Your task to perform on an android device: add a contact in the contacts app Image 0: 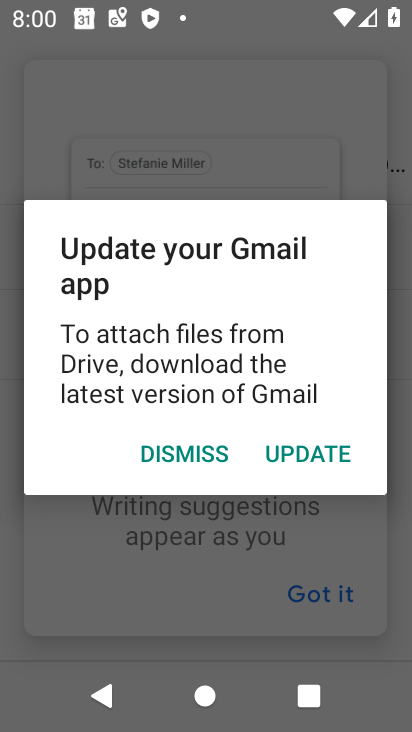
Step 0: press home button
Your task to perform on an android device: add a contact in the contacts app Image 1: 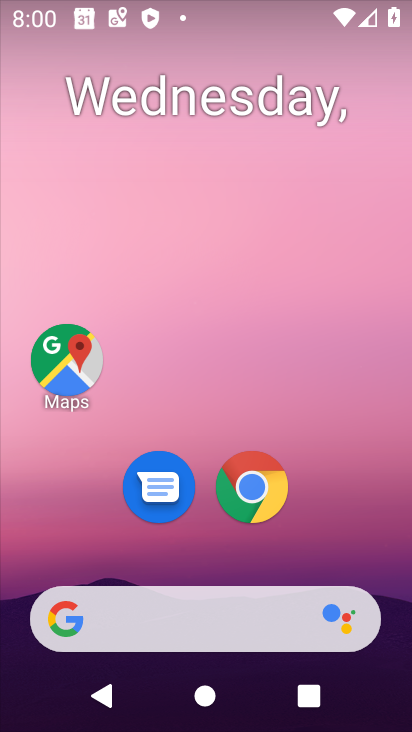
Step 1: drag from (372, 530) to (362, 194)
Your task to perform on an android device: add a contact in the contacts app Image 2: 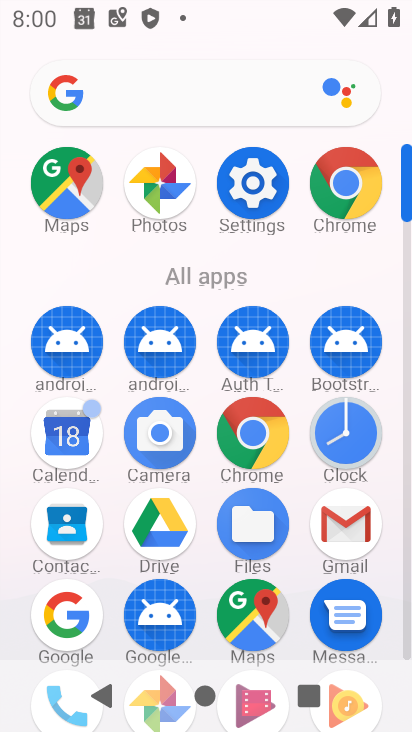
Step 2: click (44, 547)
Your task to perform on an android device: add a contact in the contacts app Image 3: 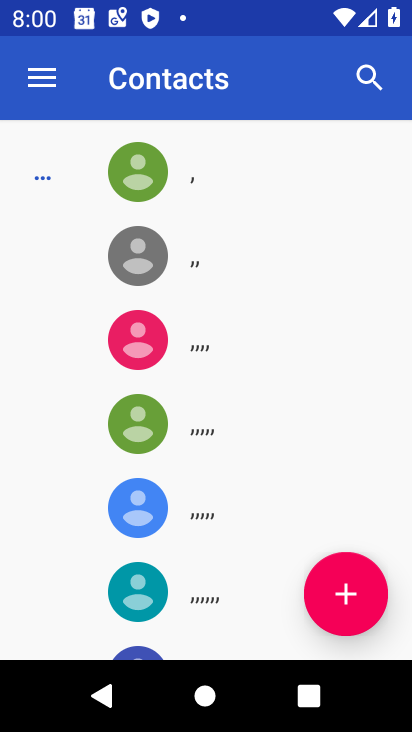
Step 3: click (368, 580)
Your task to perform on an android device: add a contact in the contacts app Image 4: 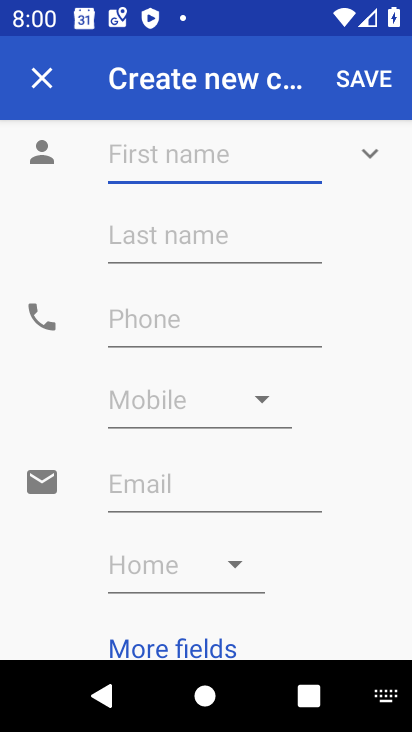
Step 4: click (224, 143)
Your task to perform on an android device: add a contact in the contacts app Image 5: 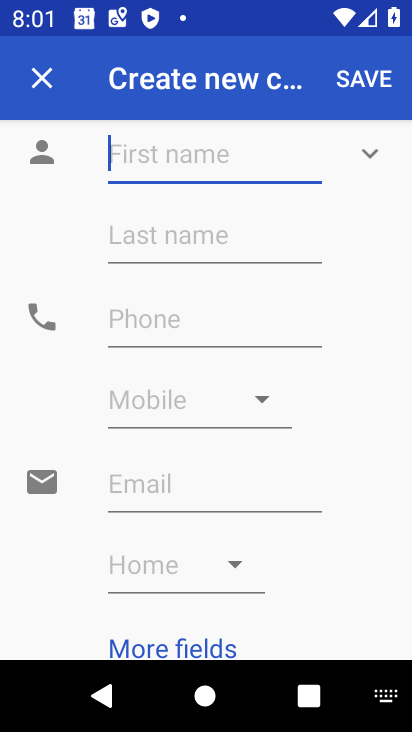
Step 5: type "fav"
Your task to perform on an android device: add a contact in the contacts app Image 6: 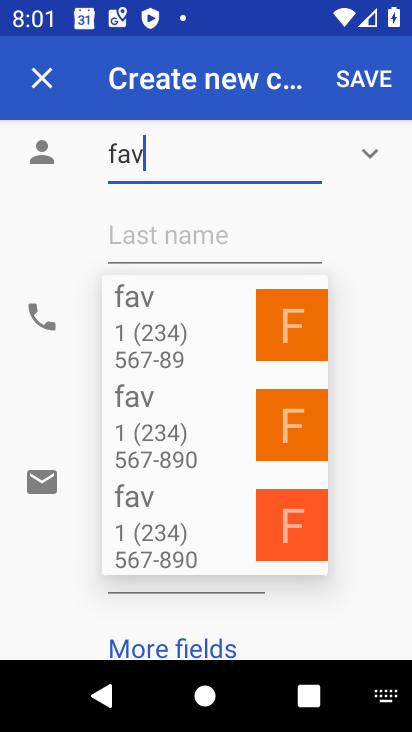
Step 6: click (387, 311)
Your task to perform on an android device: add a contact in the contacts app Image 7: 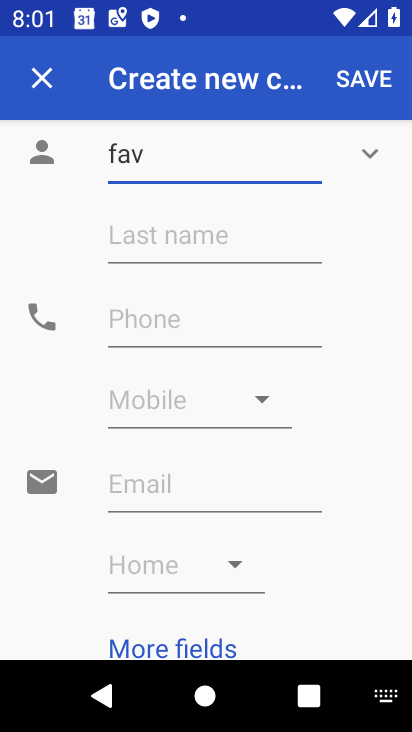
Step 7: click (187, 327)
Your task to perform on an android device: add a contact in the contacts app Image 8: 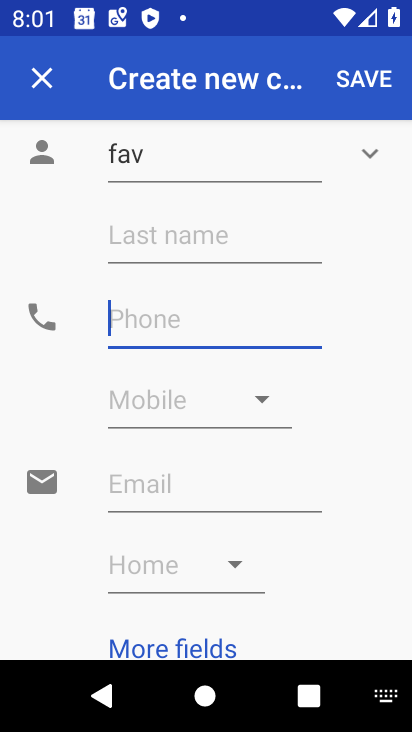
Step 8: type "1234567890"
Your task to perform on an android device: add a contact in the contacts app Image 9: 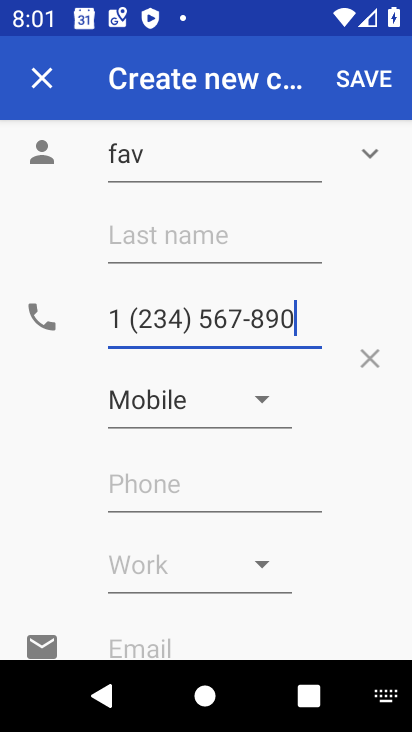
Step 9: click (360, 81)
Your task to perform on an android device: add a contact in the contacts app Image 10: 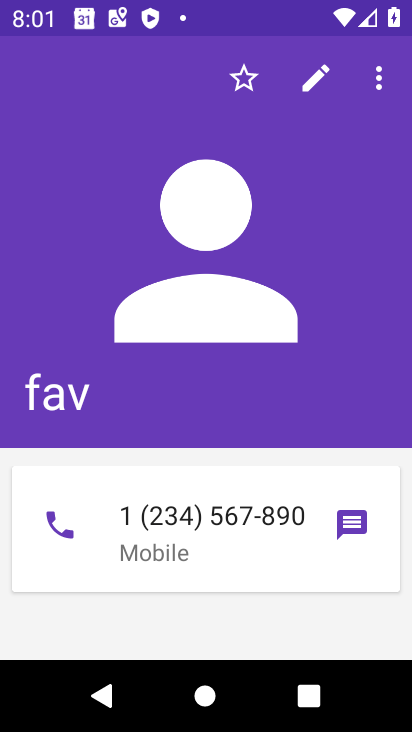
Step 10: task complete